Your task to perform on an android device: manage bookmarks in the chrome app Image 0: 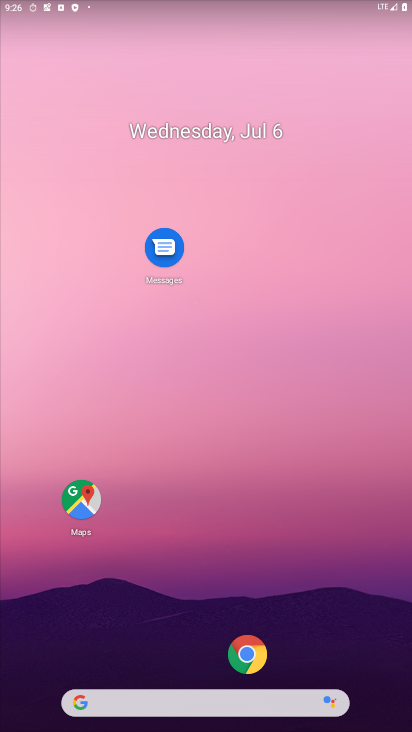
Step 0: click (252, 658)
Your task to perform on an android device: manage bookmarks in the chrome app Image 1: 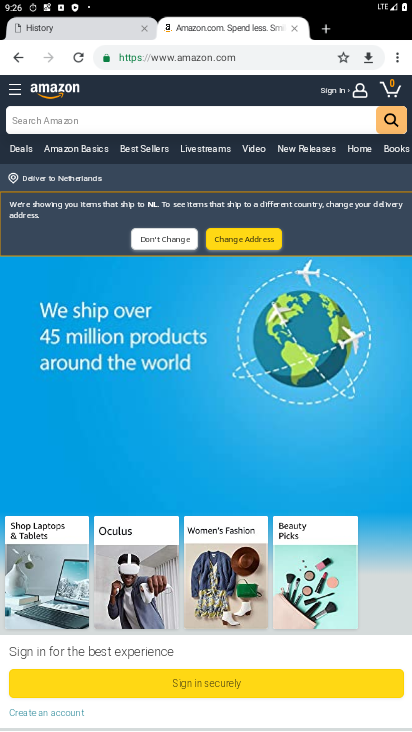
Step 1: click (391, 50)
Your task to perform on an android device: manage bookmarks in the chrome app Image 2: 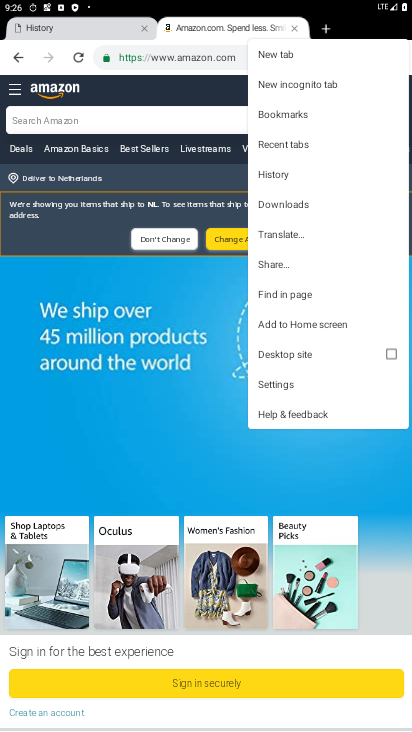
Step 2: click (290, 383)
Your task to perform on an android device: manage bookmarks in the chrome app Image 3: 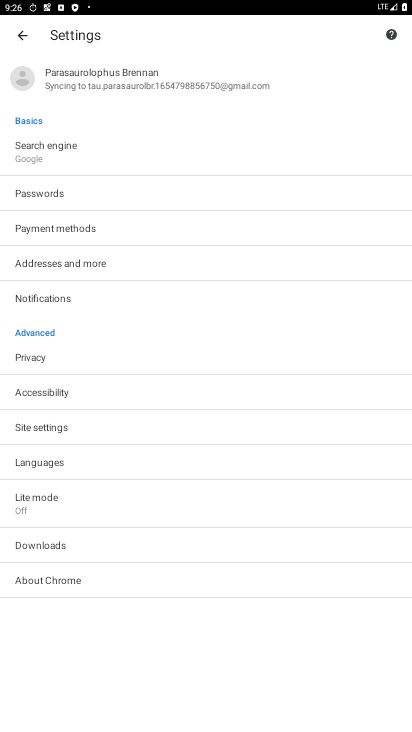
Step 3: click (19, 37)
Your task to perform on an android device: manage bookmarks in the chrome app Image 4: 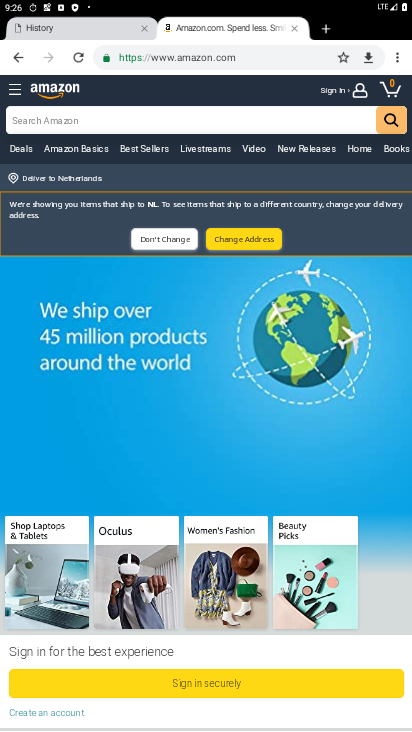
Step 4: click (399, 48)
Your task to perform on an android device: manage bookmarks in the chrome app Image 5: 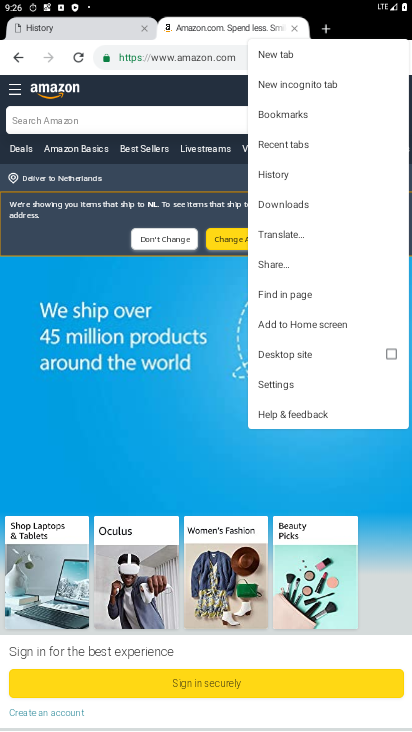
Step 5: click (326, 114)
Your task to perform on an android device: manage bookmarks in the chrome app Image 6: 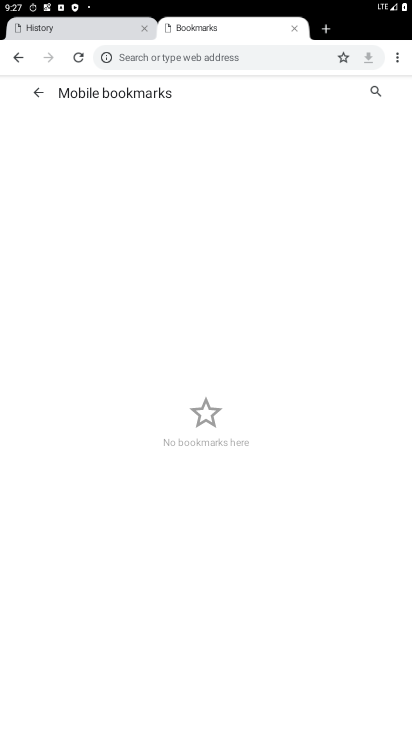
Step 6: task complete